Your task to perform on an android device: turn pop-ups on in chrome Image 0: 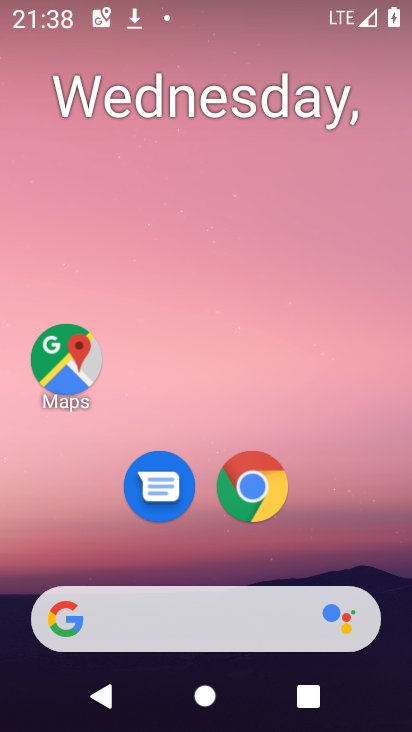
Step 0: click (248, 489)
Your task to perform on an android device: turn pop-ups on in chrome Image 1: 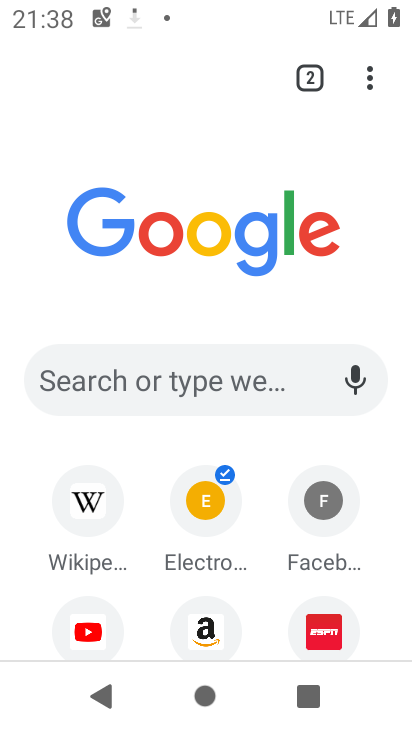
Step 1: drag from (369, 78) to (131, 543)
Your task to perform on an android device: turn pop-ups on in chrome Image 2: 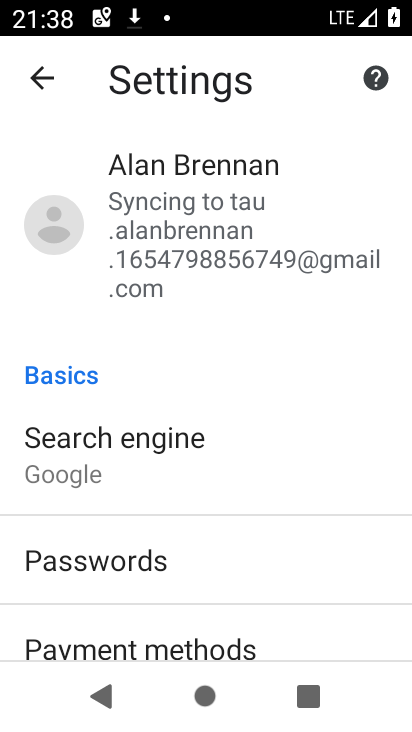
Step 2: drag from (150, 645) to (292, 206)
Your task to perform on an android device: turn pop-ups on in chrome Image 3: 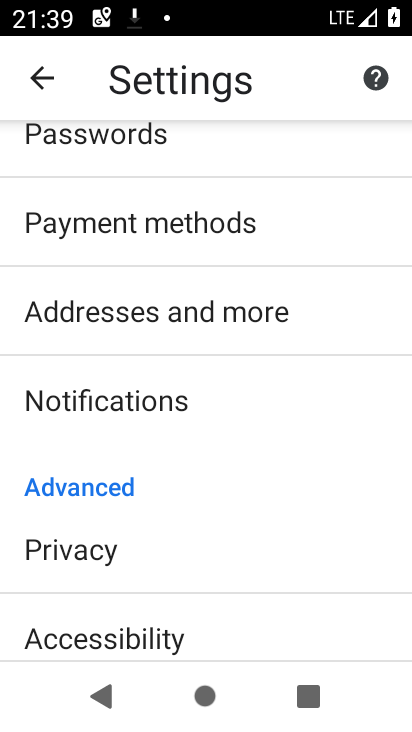
Step 3: drag from (203, 581) to (244, 156)
Your task to perform on an android device: turn pop-ups on in chrome Image 4: 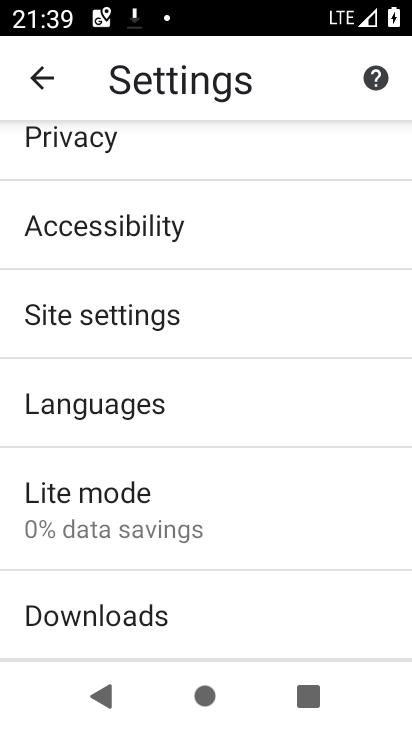
Step 4: click (99, 311)
Your task to perform on an android device: turn pop-ups on in chrome Image 5: 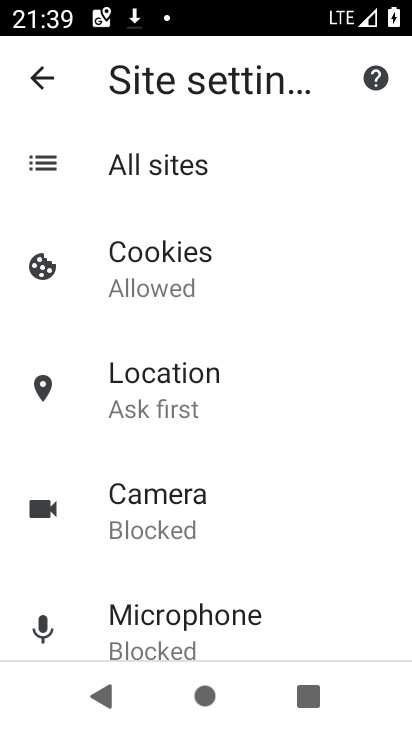
Step 5: drag from (209, 606) to (283, 182)
Your task to perform on an android device: turn pop-ups on in chrome Image 6: 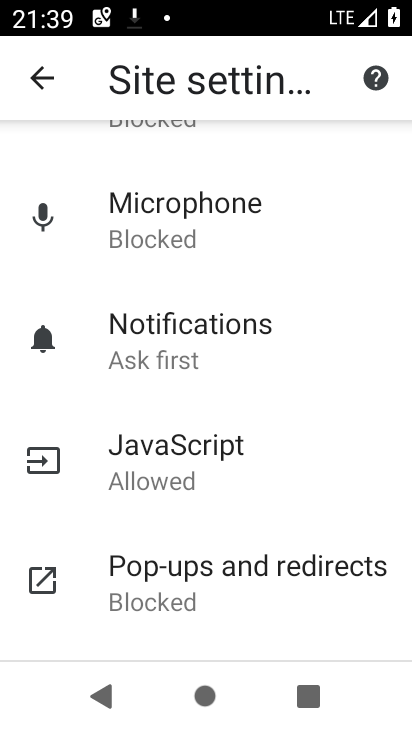
Step 6: click (163, 582)
Your task to perform on an android device: turn pop-ups on in chrome Image 7: 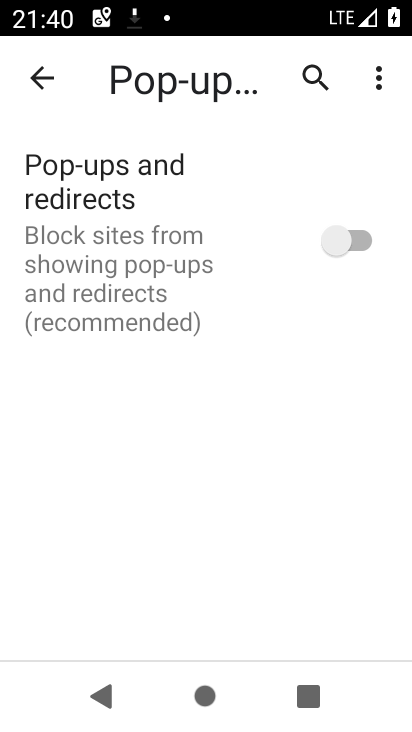
Step 7: click (335, 233)
Your task to perform on an android device: turn pop-ups on in chrome Image 8: 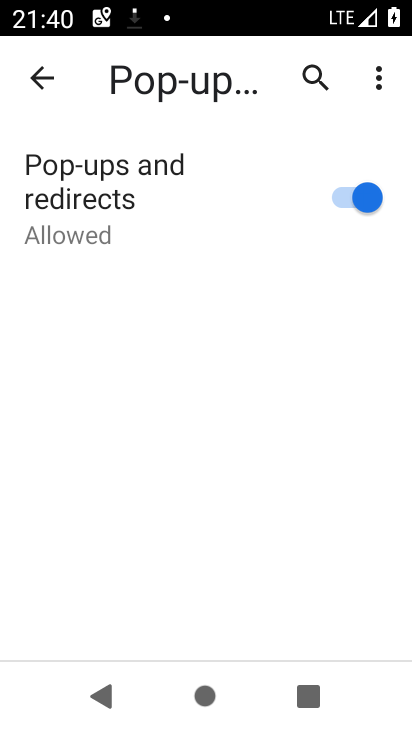
Step 8: task complete